Your task to perform on an android device: Search for Italian restaurants on Maps Image 0: 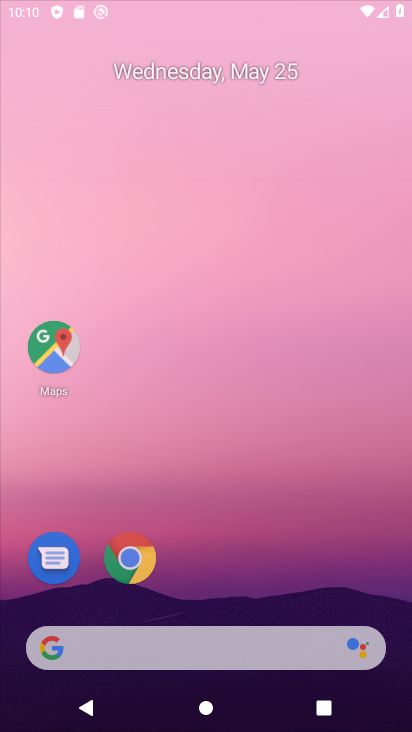
Step 0: click (230, 0)
Your task to perform on an android device: Search for Italian restaurants on Maps Image 1: 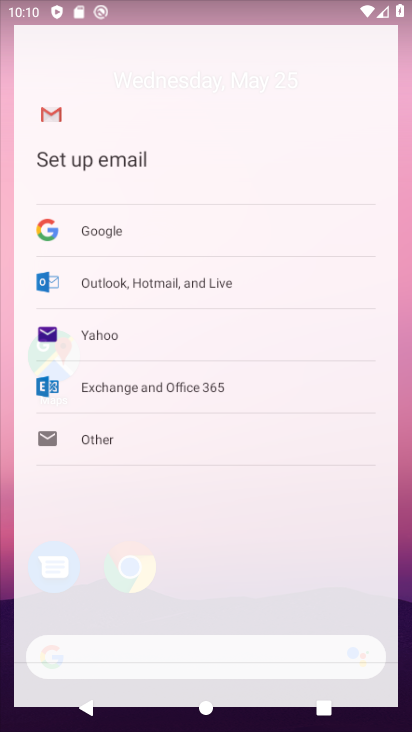
Step 1: drag from (265, 603) to (206, 70)
Your task to perform on an android device: Search for Italian restaurants on Maps Image 2: 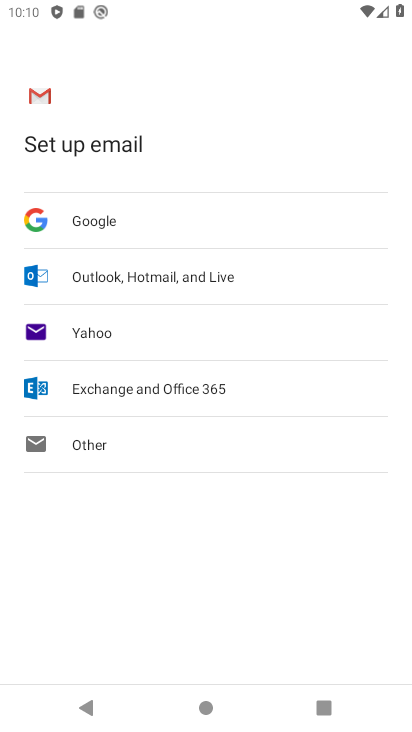
Step 2: press back button
Your task to perform on an android device: Search for Italian restaurants on Maps Image 3: 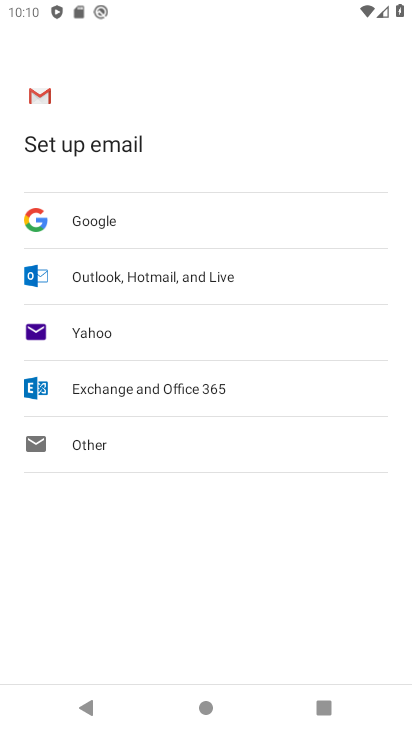
Step 3: press back button
Your task to perform on an android device: Search for Italian restaurants on Maps Image 4: 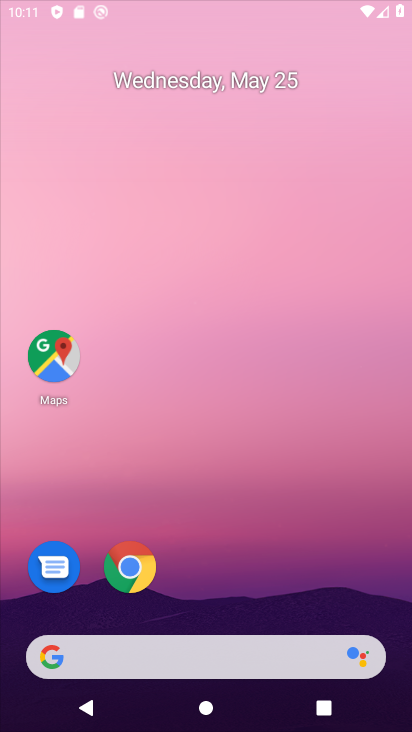
Step 4: press back button
Your task to perform on an android device: Search for Italian restaurants on Maps Image 5: 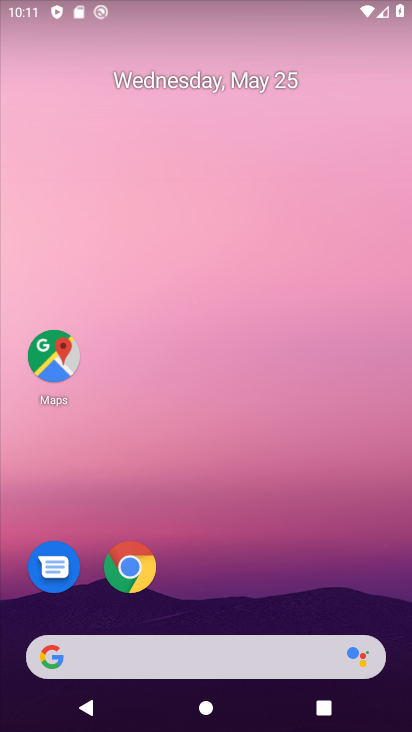
Step 5: drag from (247, 655) to (191, 54)
Your task to perform on an android device: Search for Italian restaurants on Maps Image 6: 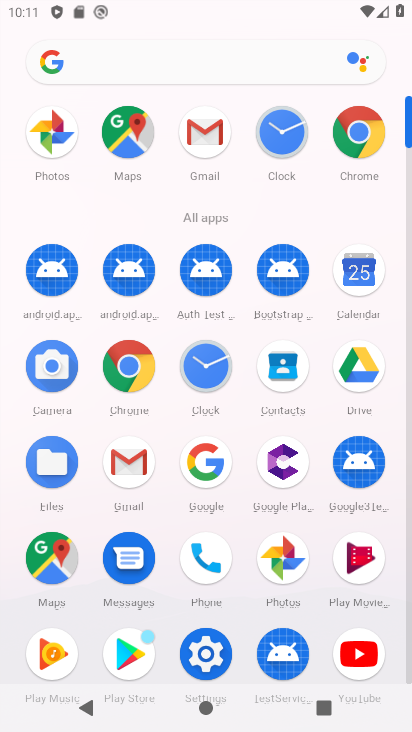
Step 6: click (58, 537)
Your task to perform on an android device: Search for Italian restaurants on Maps Image 7: 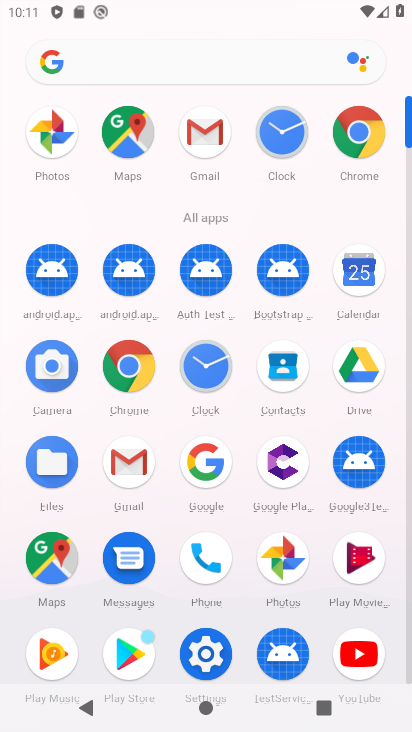
Step 7: click (56, 539)
Your task to perform on an android device: Search for Italian restaurants on Maps Image 8: 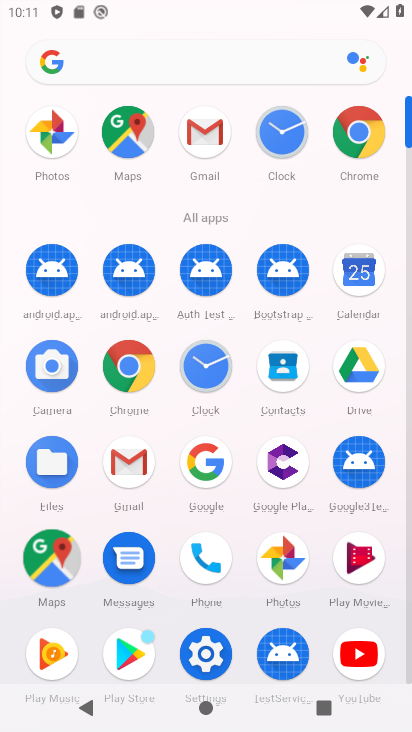
Step 8: click (56, 539)
Your task to perform on an android device: Search for Italian restaurants on Maps Image 9: 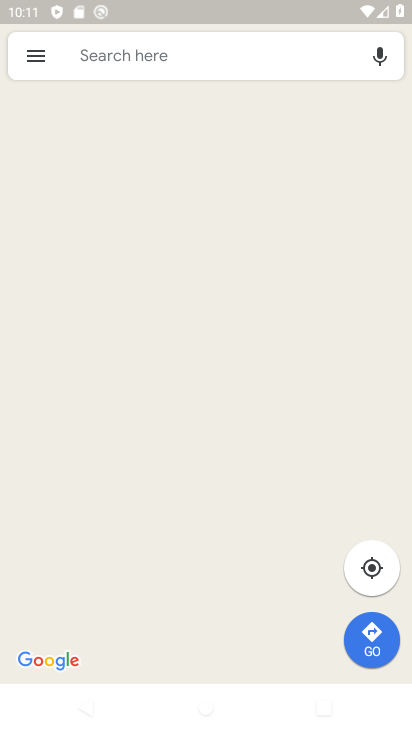
Step 9: click (97, 52)
Your task to perform on an android device: Search for Italian restaurants on Maps Image 10: 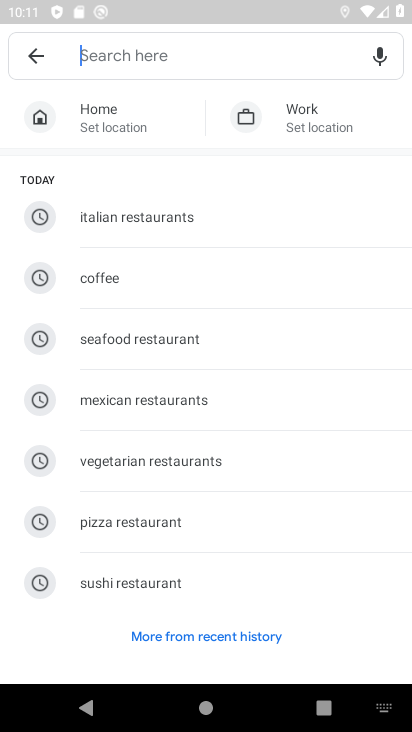
Step 10: type "italian restaurants"
Your task to perform on an android device: Search for Italian restaurants on Maps Image 11: 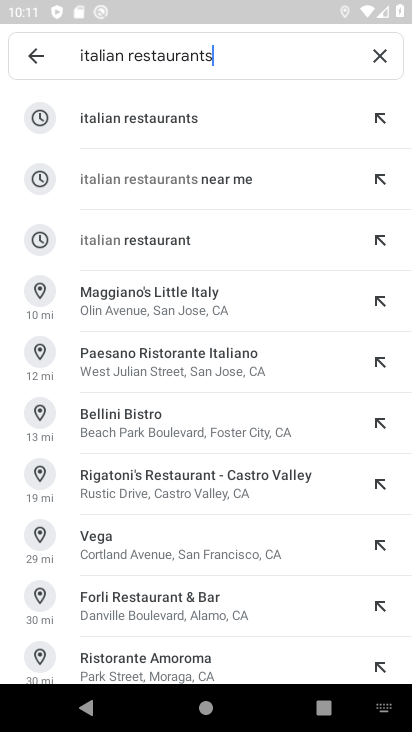
Step 11: click (139, 124)
Your task to perform on an android device: Search for Italian restaurants on Maps Image 12: 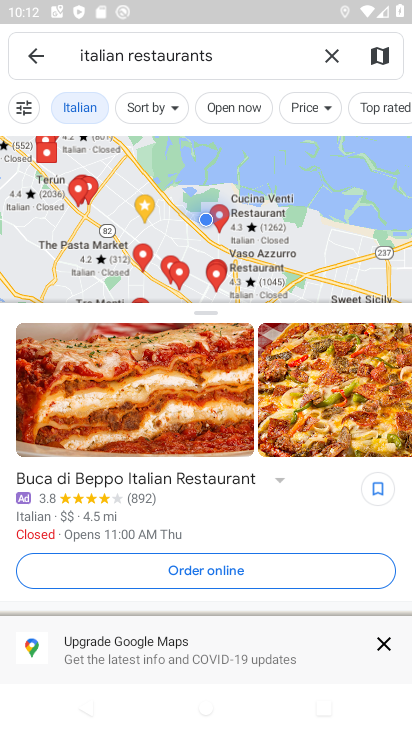
Step 12: task complete